Your task to perform on an android device: Go to sound settings Image 0: 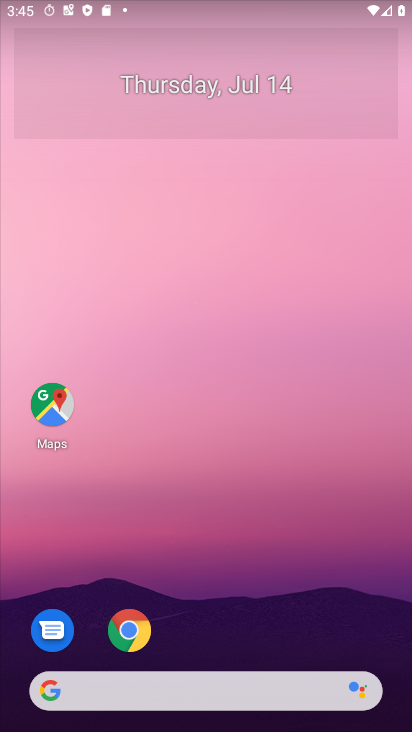
Step 0: drag from (231, 725) to (229, 93)
Your task to perform on an android device: Go to sound settings Image 1: 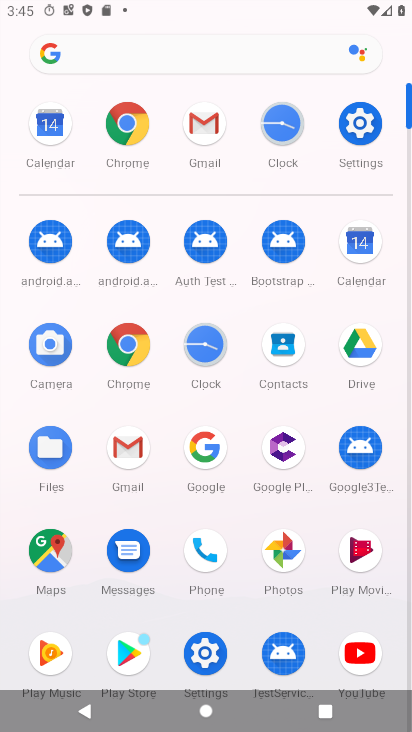
Step 1: click (355, 121)
Your task to perform on an android device: Go to sound settings Image 2: 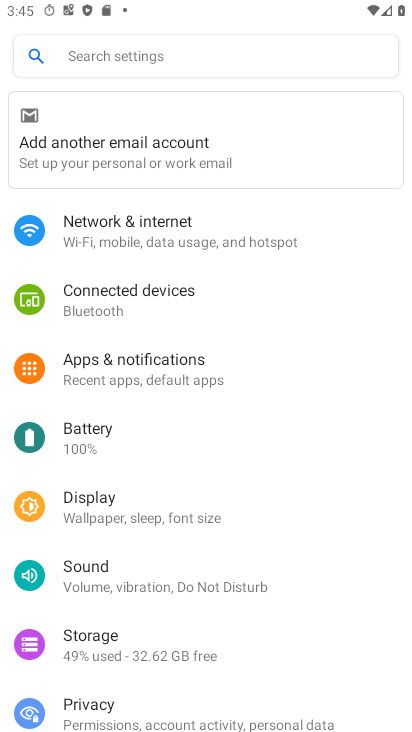
Step 2: click (84, 568)
Your task to perform on an android device: Go to sound settings Image 3: 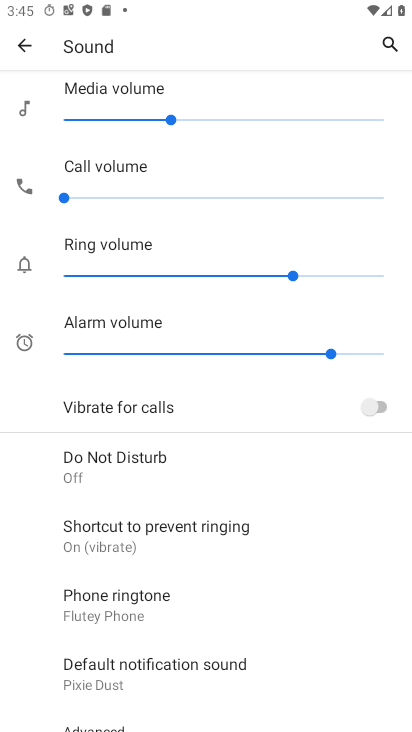
Step 3: task complete